Your task to perform on an android device: Open internet settings Image 0: 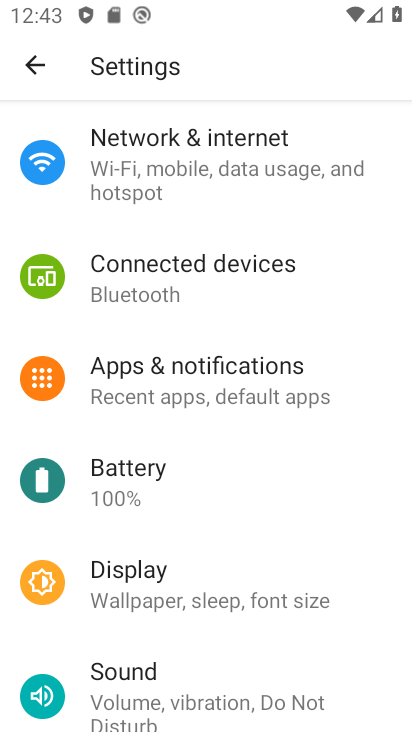
Step 0: click (219, 139)
Your task to perform on an android device: Open internet settings Image 1: 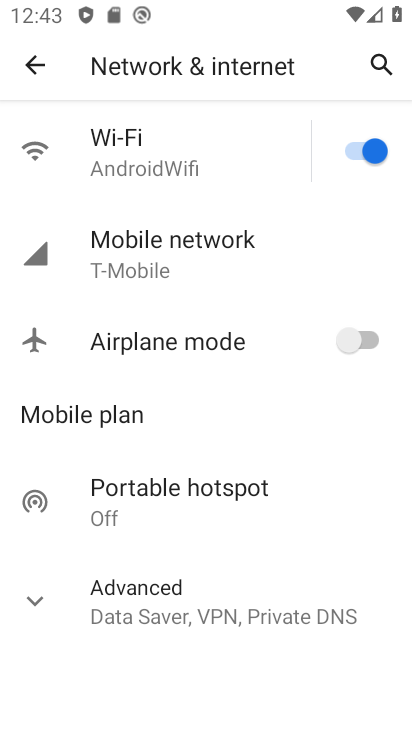
Step 1: task complete